Your task to perform on an android device: Open internet settings Image 0: 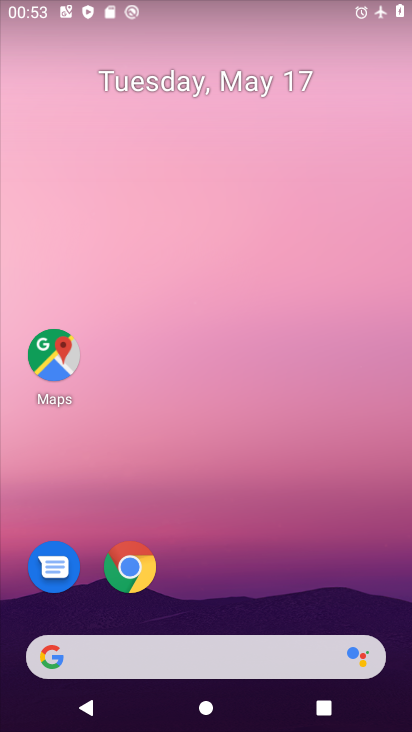
Step 0: drag from (234, 520) to (198, 1)
Your task to perform on an android device: Open internet settings Image 1: 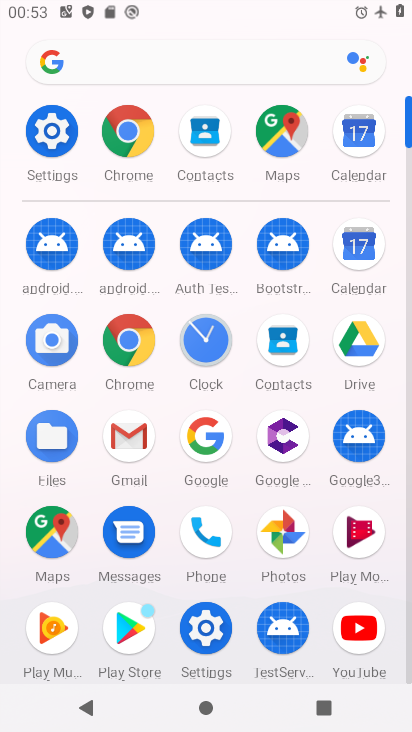
Step 1: click (48, 126)
Your task to perform on an android device: Open internet settings Image 2: 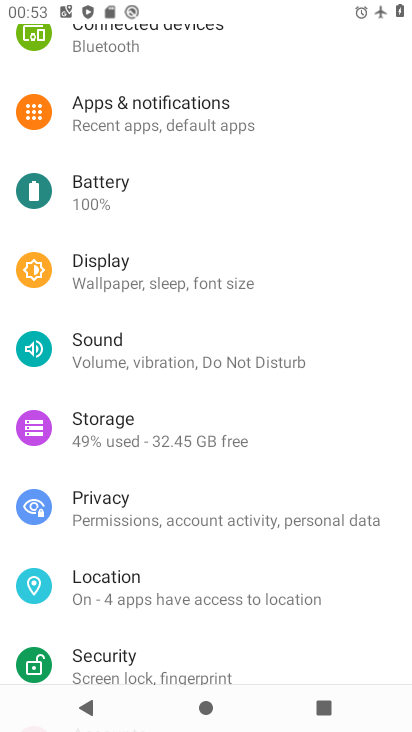
Step 2: drag from (178, 193) to (174, 712)
Your task to perform on an android device: Open internet settings Image 3: 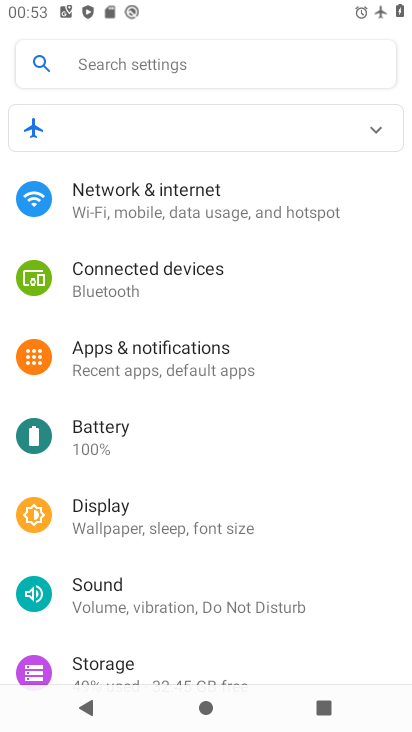
Step 3: click (136, 195)
Your task to perform on an android device: Open internet settings Image 4: 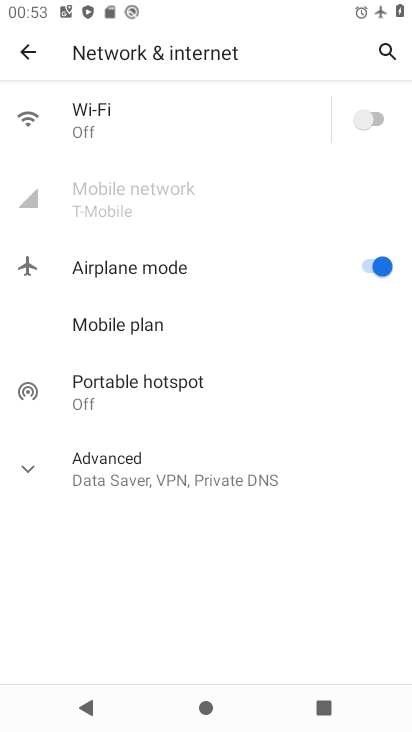
Step 4: task complete